Your task to perform on an android device: turn off sleep mode Image 0: 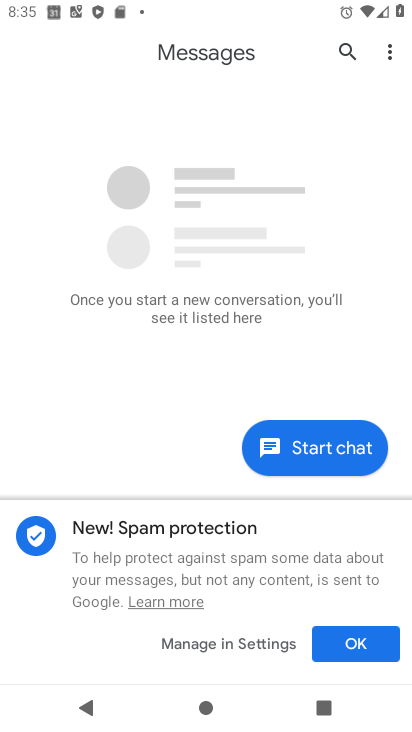
Step 0: press home button
Your task to perform on an android device: turn off sleep mode Image 1: 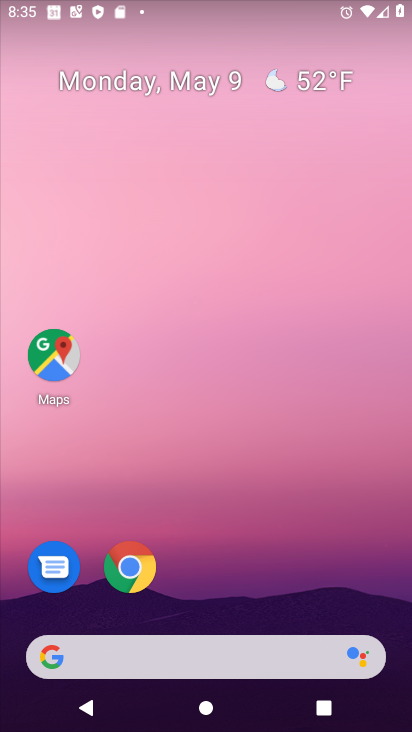
Step 1: drag from (339, 550) to (345, 118)
Your task to perform on an android device: turn off sleep mode Image 2: 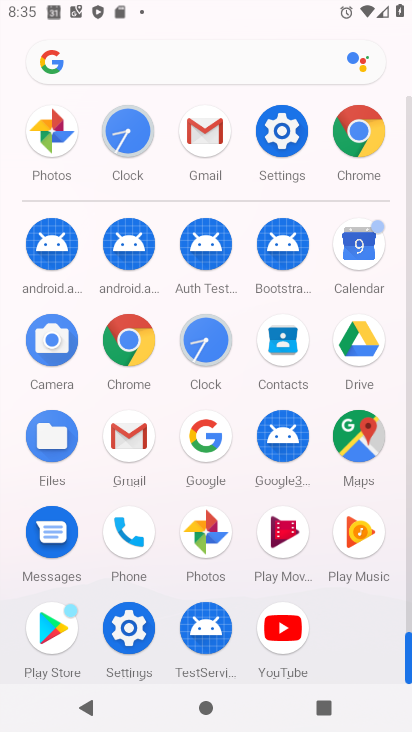
Step 2: click (283, 134)
Your task to perform on an android device: turn off sleep mode Image 3: 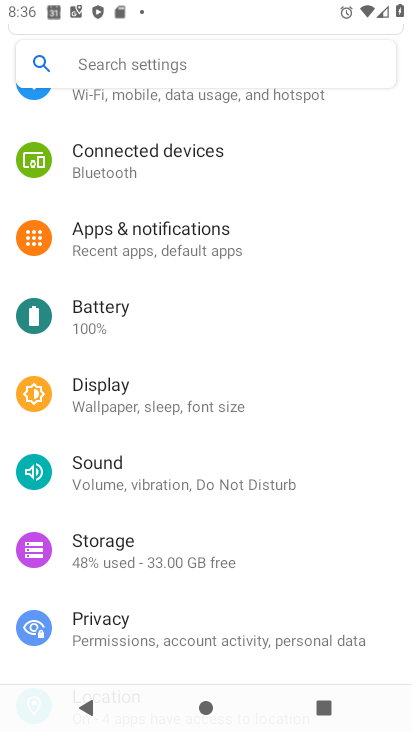
Step 3: click (277, 65)
Your task to perform on an android device: turn off sleep mode Image 4: 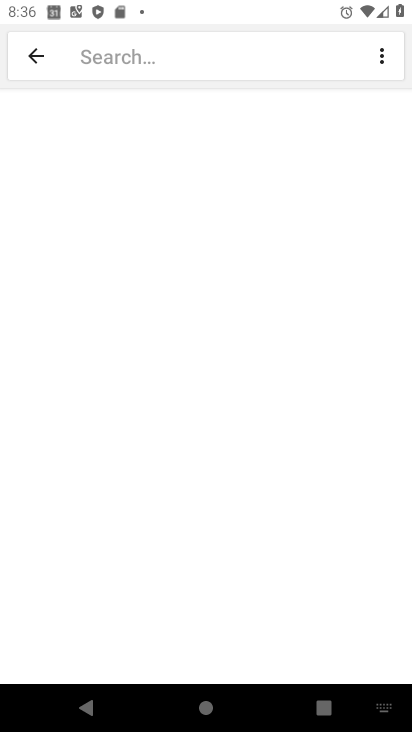
Step 4: type "sleep mode"
Your task to perform on an android device: turn off sleep mode Image 5: 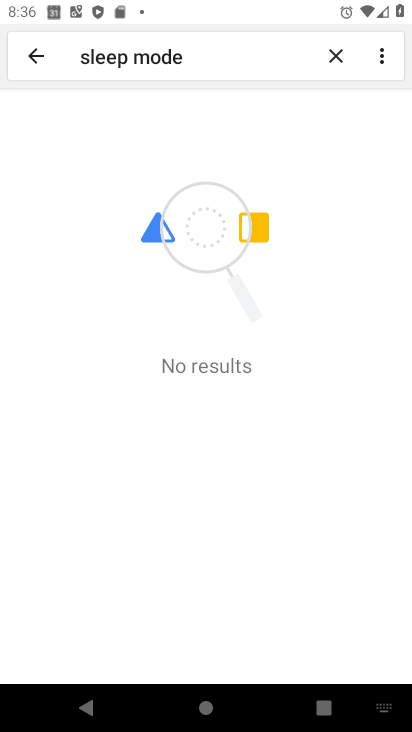
Step 5: task complete